Your task to perform on an android device: turn off smart reply in the gmail app Image 0: 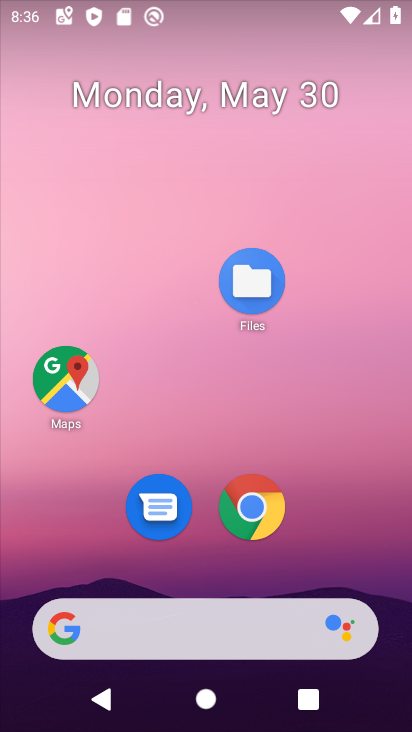
Step 0: drag from (215, 523) to (266, 28)
Your task to perform on an android device: turn off smart reply in the gmail app Image 1: 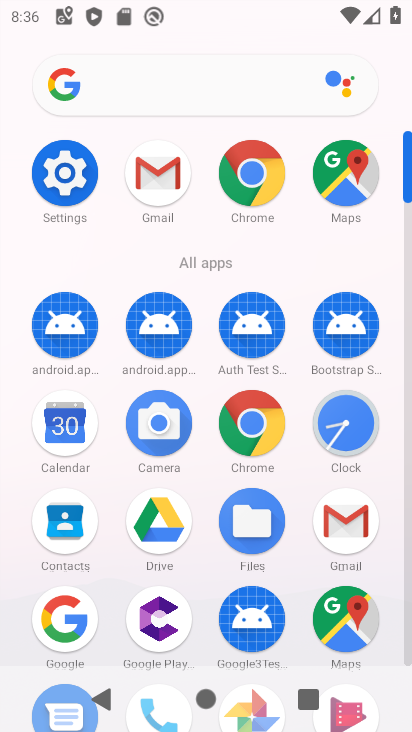
Step 1: click (348, 527)
Your task to perform on an android device: turn off smart reply in the gmail app Image 2: 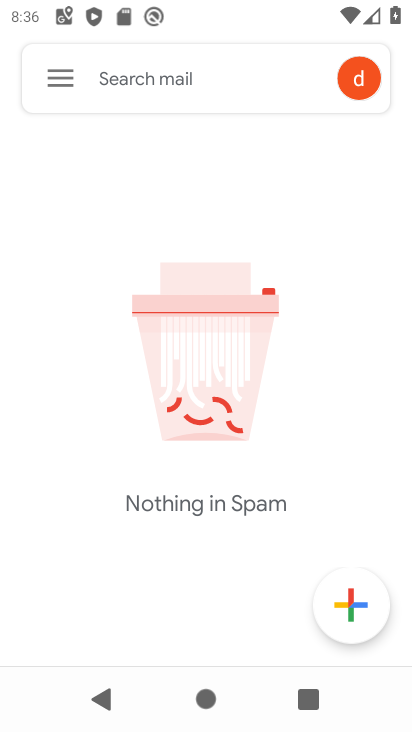
Step 2: click (56, 92)
Your task to perform on an android device: turn off smart reply in the gmail app Image 3: 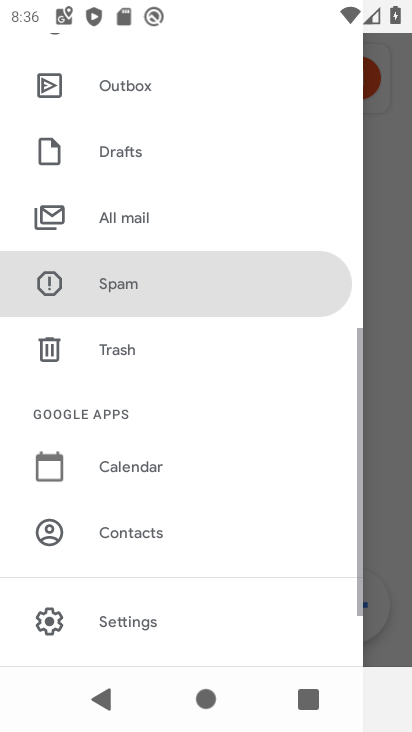
Step 3: drag from (99, 583) to (163, 259)
Your task to perform on an android device: turn off smart reply in the gmail app Image 4: 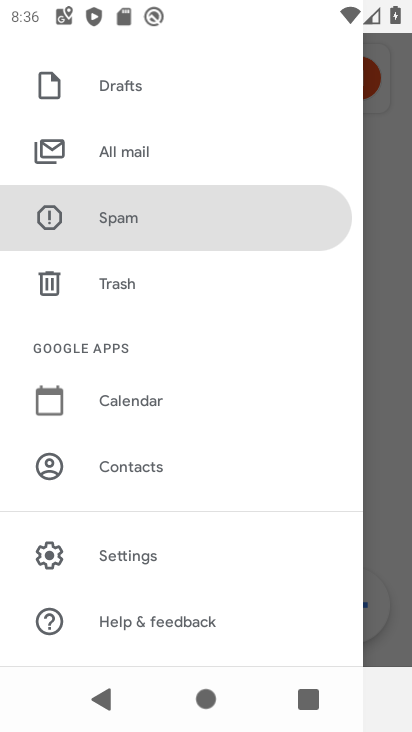
Step 4: click (144, 551)
Your task to perform on an android device: turn off smart reply in the gmail app Image 5: 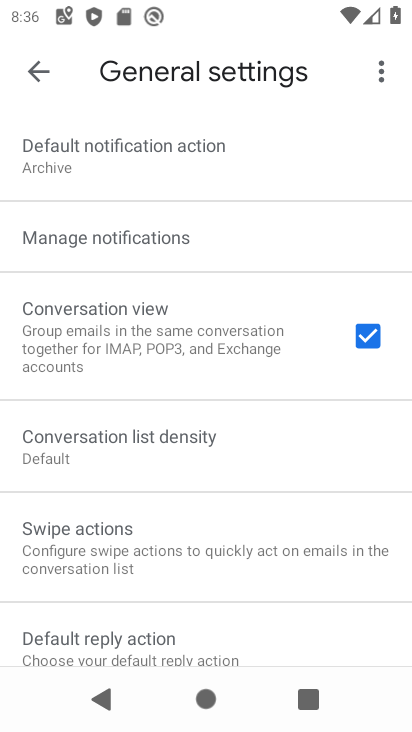
Step 5: click (24, 67)
Your task to perform on an android device: turn off smart reply in the gmail app Image 6: 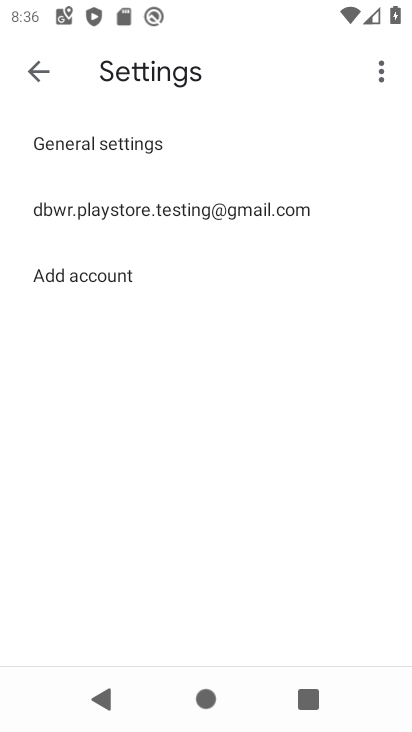
Step 6: click (171, 215)
Your task to perform on an android device: turn off smart reply in the gmail app Image 7: 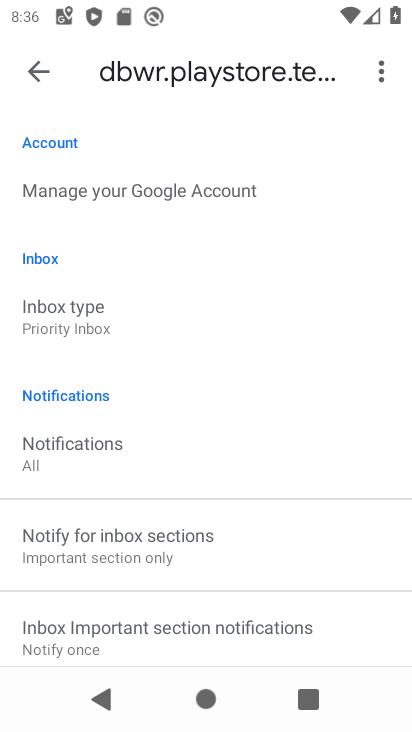
Step 7: drag from (178, 521) to (243, 195)
Your task to perform on an android device: turn off smart reply in the gmail app Image 8: 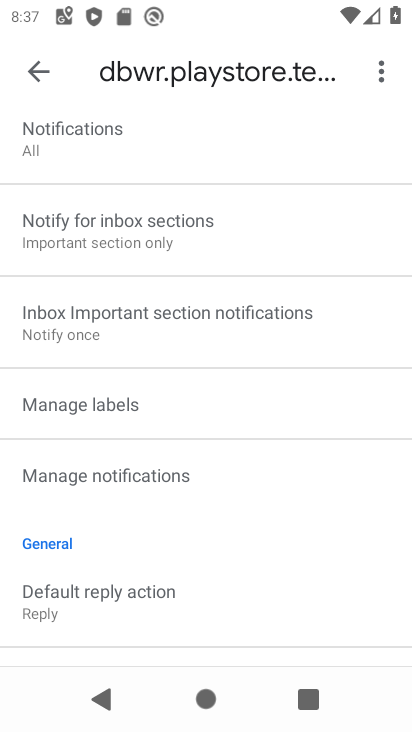
Step 8: drag from (169, 488) to (188, 343)
Your task to perform on an android device: turn off smart reply in the gmail app Image 9: 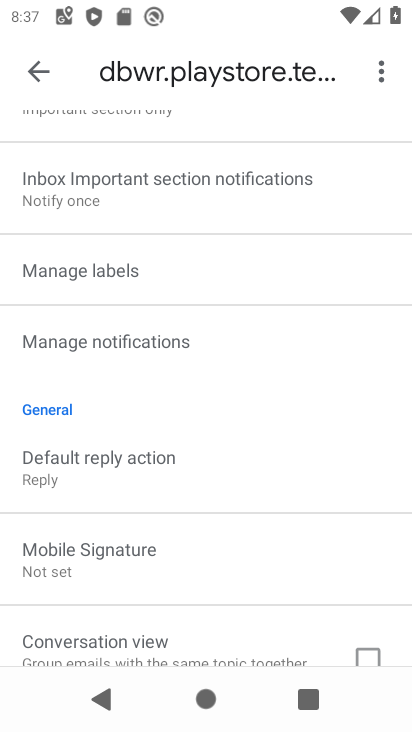
Step 9: drag from (172, 484) to (180, 243)
Your task to perform on an android device: turn off smart reply in the gmail app Image 10: 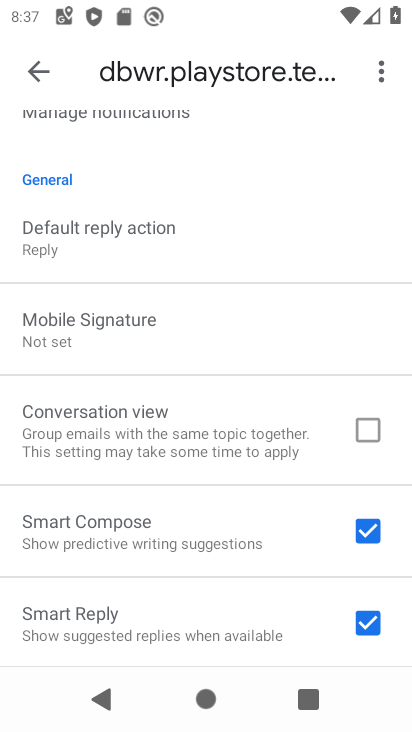
Step 10: click (357, 620)
Your task to perform on an android device: turn off smart reply in the gmail app Image 11: 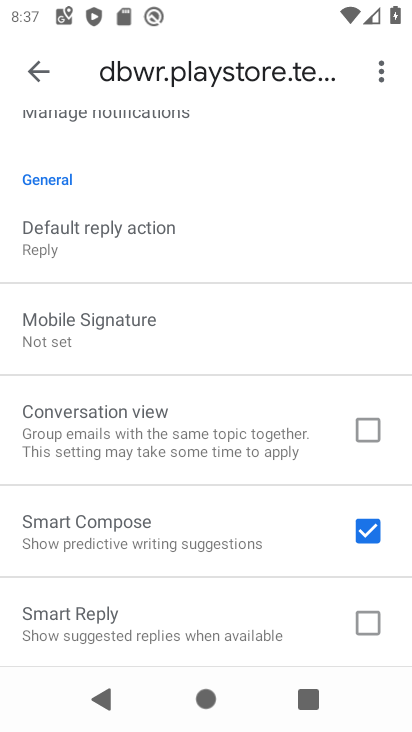
Step 11: task complete